Your task to perform on an android device: toggle sleep mode Image 0: 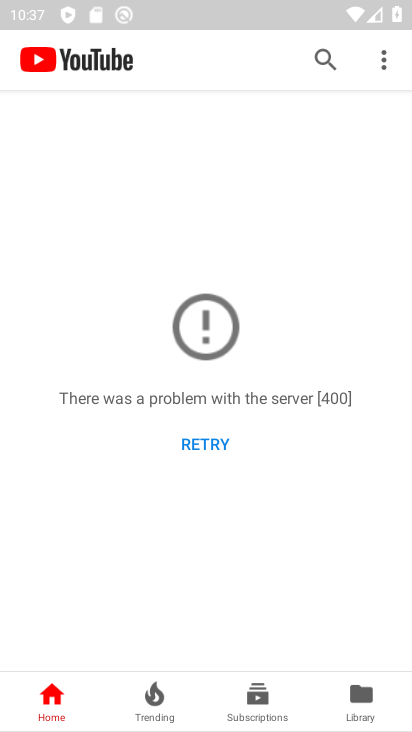
Step 0: press back button
Your task to perform on an android device: toggle sleep mode Image 1: 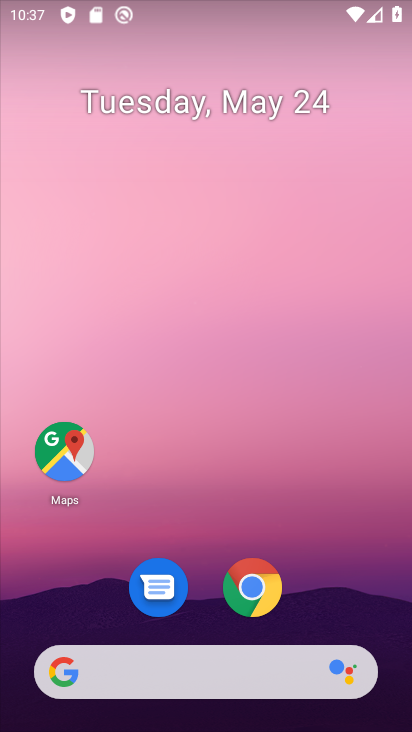
Step 1: drag from (367, 575) to (183, 17)
Your task to perform on an android device: toggle sleep mode Image 2: 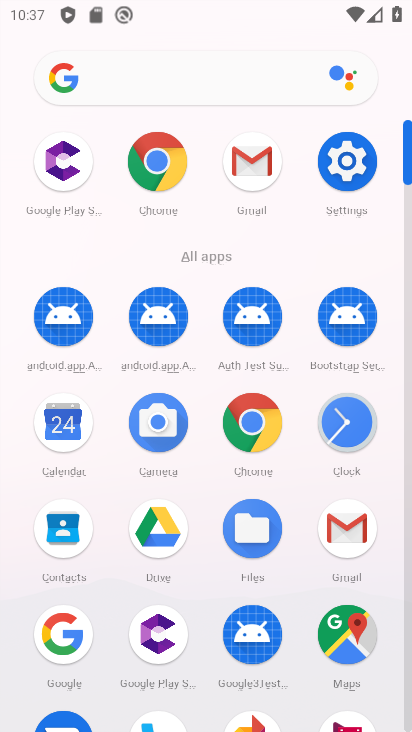
Step 2: drag from (11, 610) to (20, 264)
Your task to perform on an android device: toggle sleep mode Image 3: 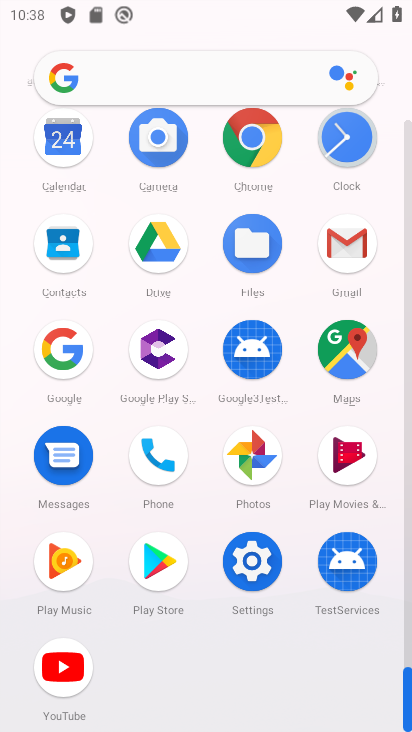
Step 3: click (250, 563)
Your task to perform on an android device: toggle sleep mode Image 4: 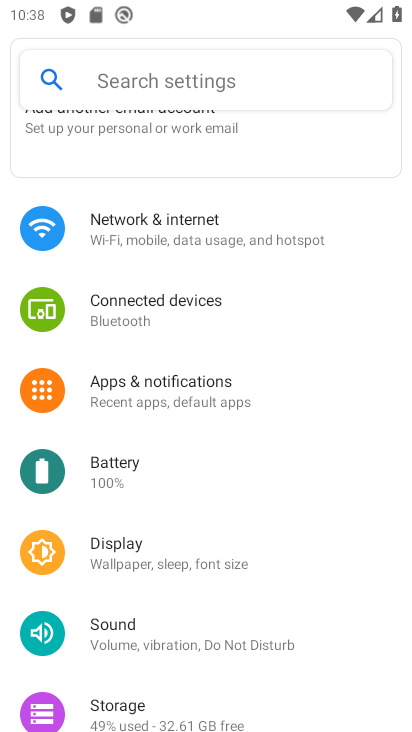
Step 4: click (144, 560)
Your task to perform on an android device: toggle sleep mode Image 5: 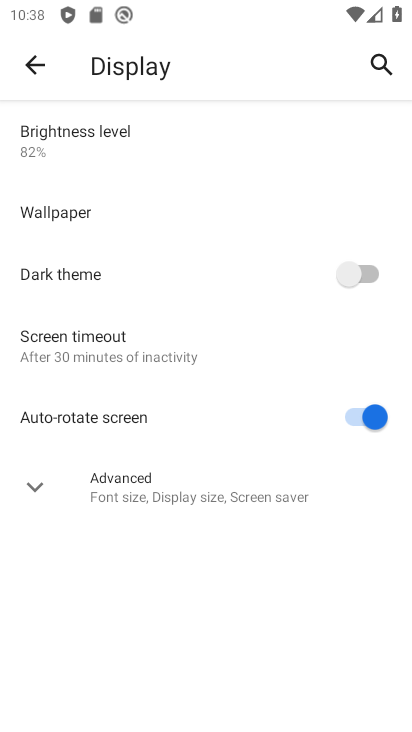
Step 5: click (51, 482)
Your task to perform on an android device: toggle sleep mode Image 6: 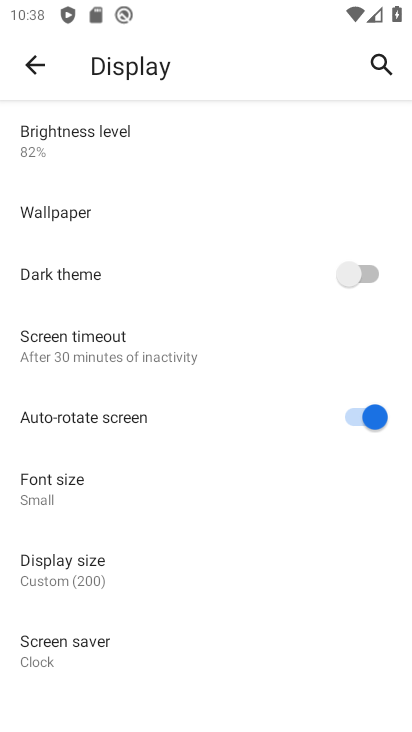
Step 6: task complete